Your task to perform on an android device: Open the clock Image 0: 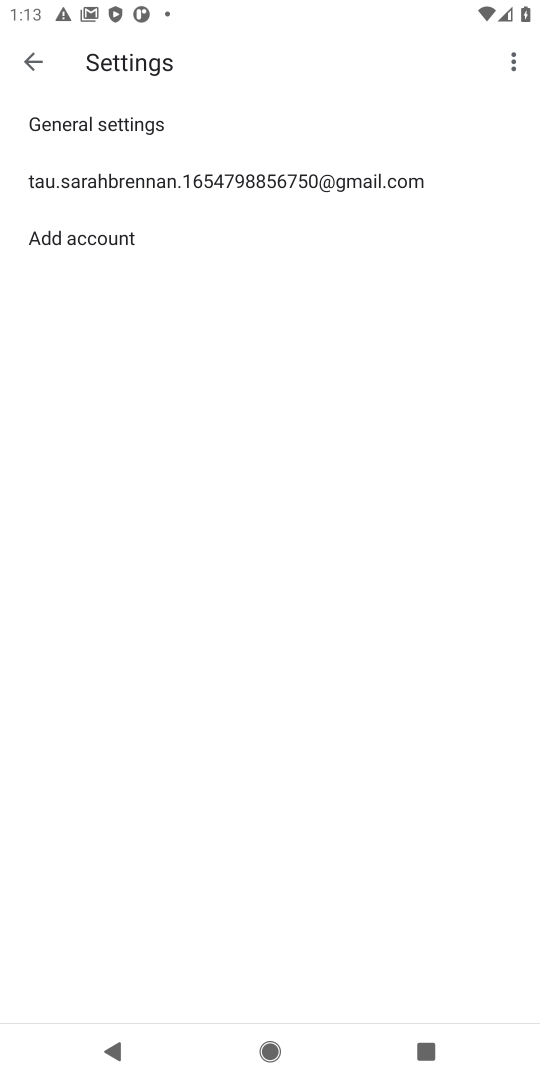
Step 0: press home button
Your task to perform on an android device: Open the clock Image 1: 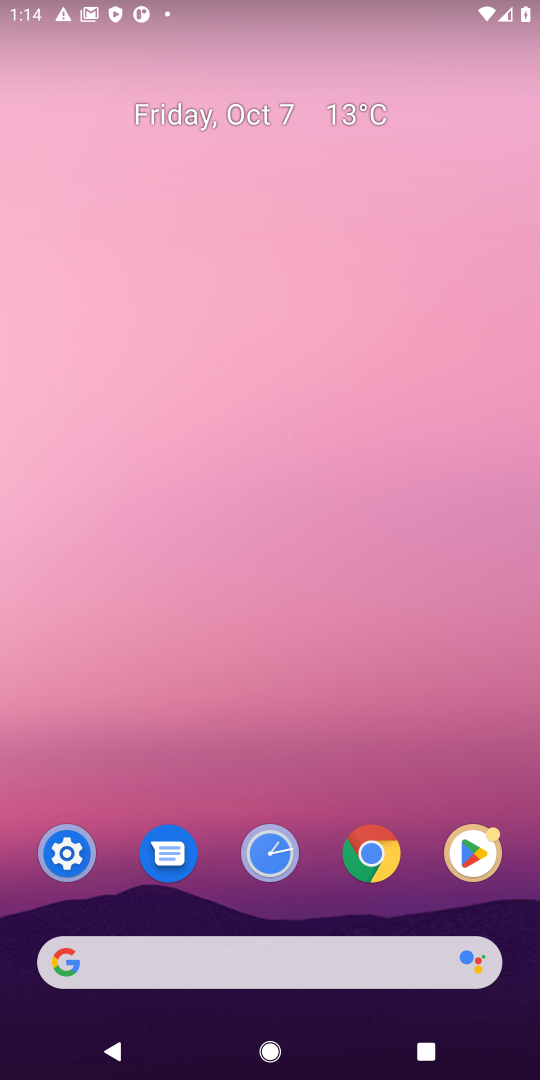
Step 1: click (274, 857)
Your task to perform on an android device: Open the clock Image 2: 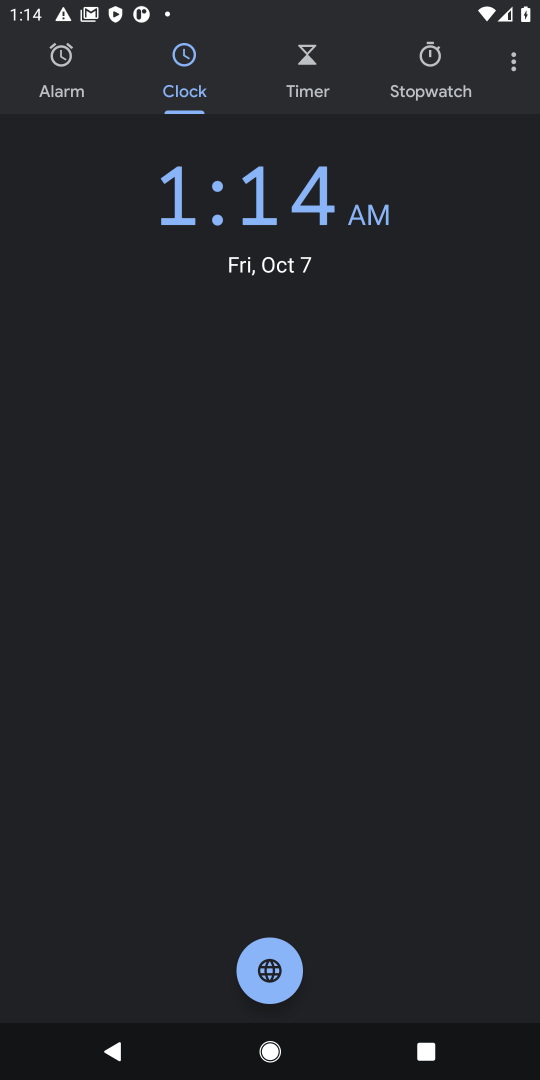
Step 2: task complete